Your task to perform on an android device: Go to Yahoo.com Image 0: 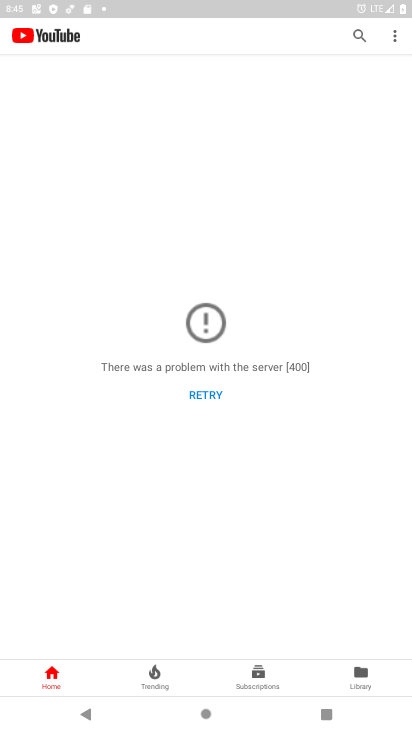
Step 0: press home button
Your task to perform on an android device: Go to Yahoo.com Image 1: 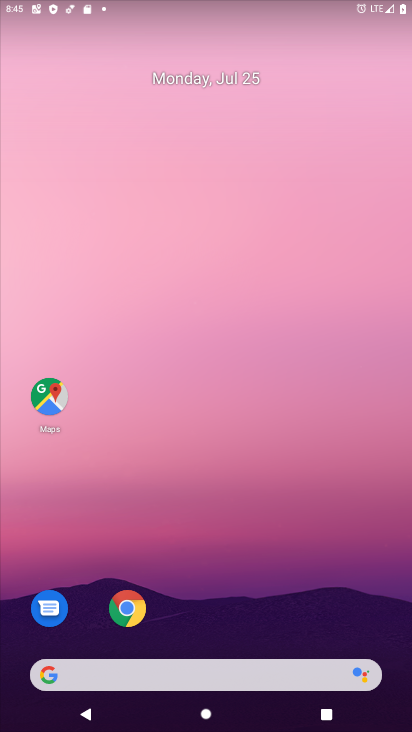
Step 1: click (124, 610)
Your task to perform on an android device: Go to Yahoo.com Image 2: 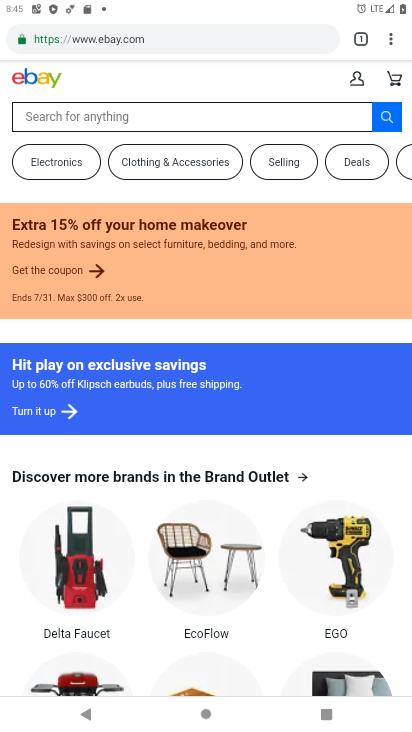
Step 2: click (390, 42)
Your task to perform on an android device: Go to Yahoo.com Image 3: 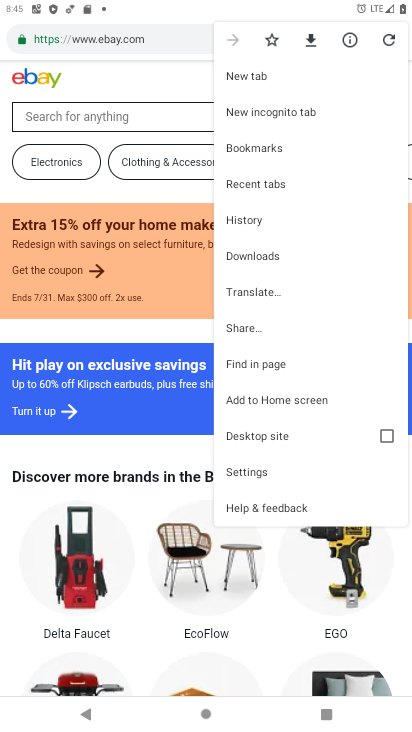
Step 3: click (260, 73)
Your task to perform on an android device: Go to Yahoo.com Image 4: 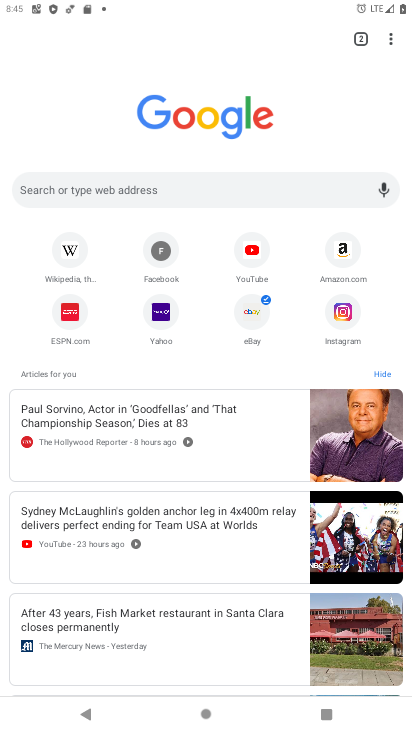
Step 4: click (154, 315)
Your task to perform on an android device: Go to Yahoo.com Image 5: 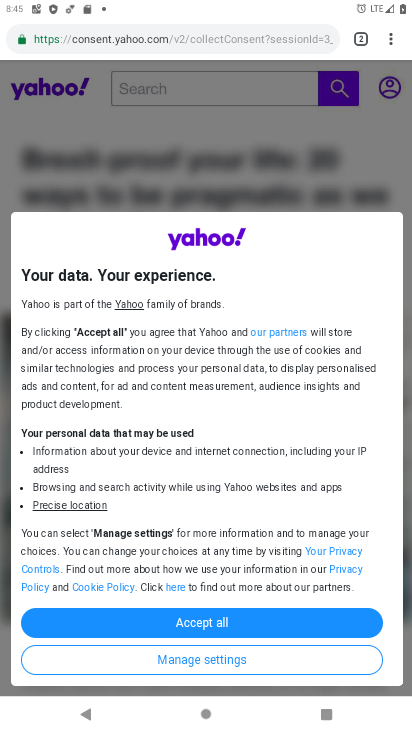
Step 5: task complete